Your task to perform on an android device: open wifi settings Image 0: 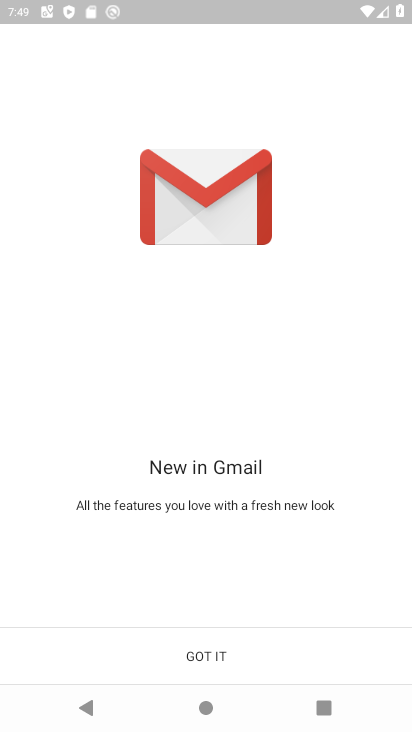
Step 0: click (214, 643)
Your task to perform on an android device: open wifi settings Image 1: 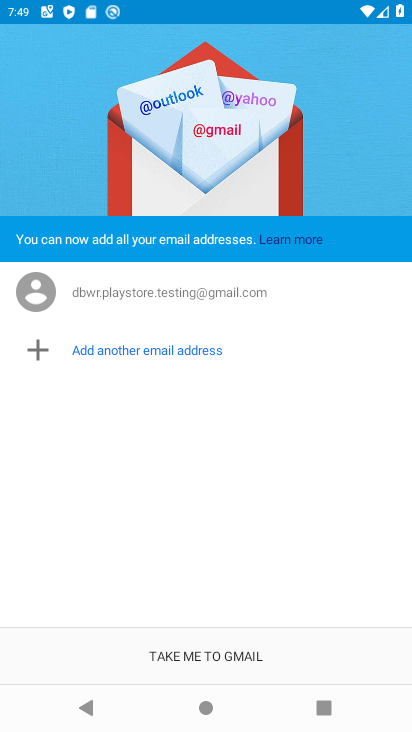
Step 1: click (144, 659)
Your task to perform on an android device: open wifi settings Image 2: 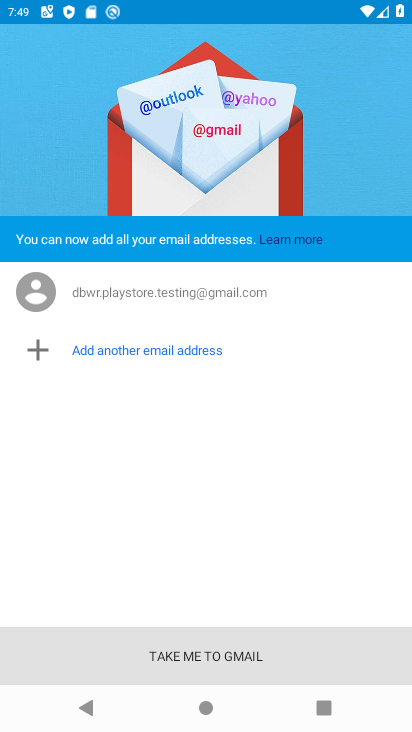
Step 2: click (162, 642)
Your task to perform on an android device: open wifi settings Image 3: 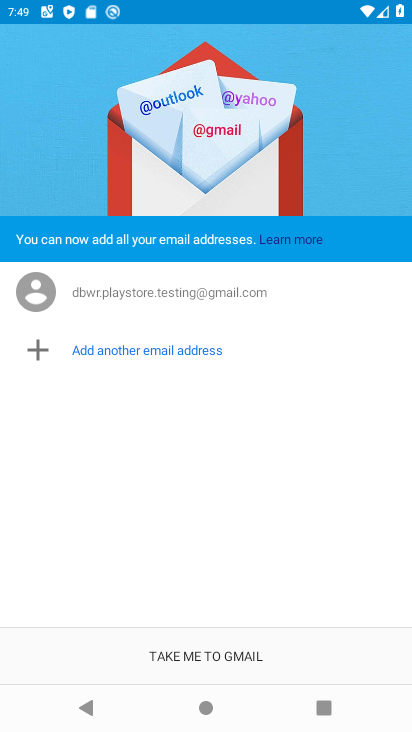
Step 3: click (168, 649)
Your task to perform on an android device: open wifi settings Image 4: 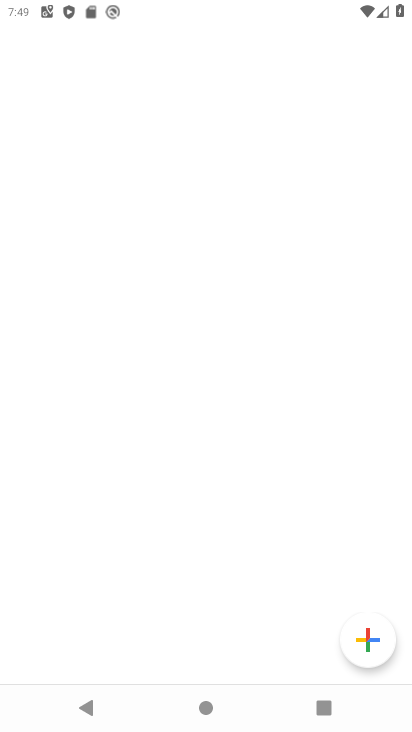
Step 4: click (170, 651)
Your task to perform on an android device: open wifi settings Image 5: 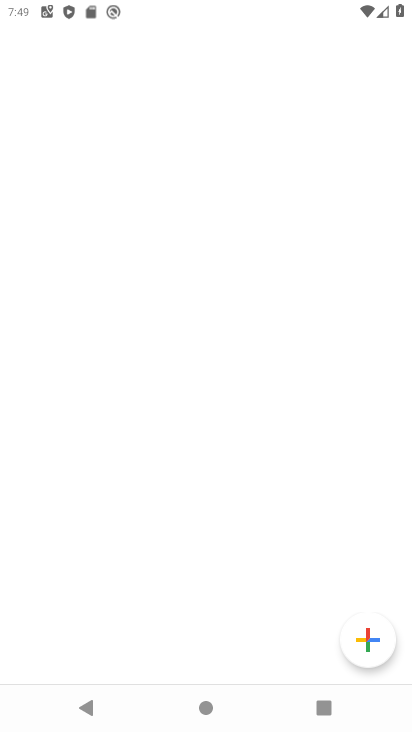
Step 5: click (168, 653)
Your task to perform on an android device: open wifi settings Image 6: 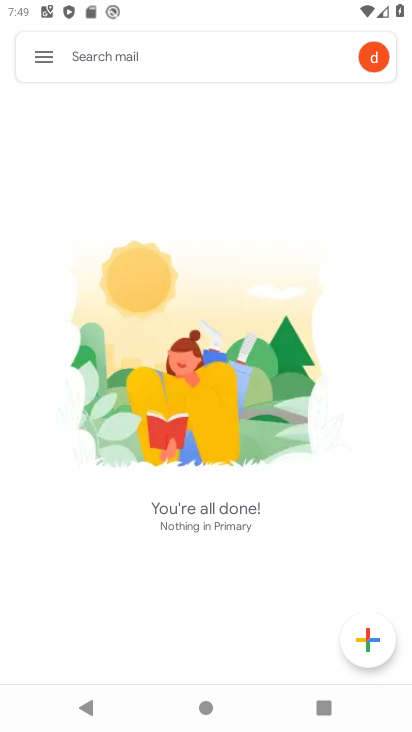
Step 6: click (51, 60)
Your task to perform on an android device: open wifi settings Image 7: 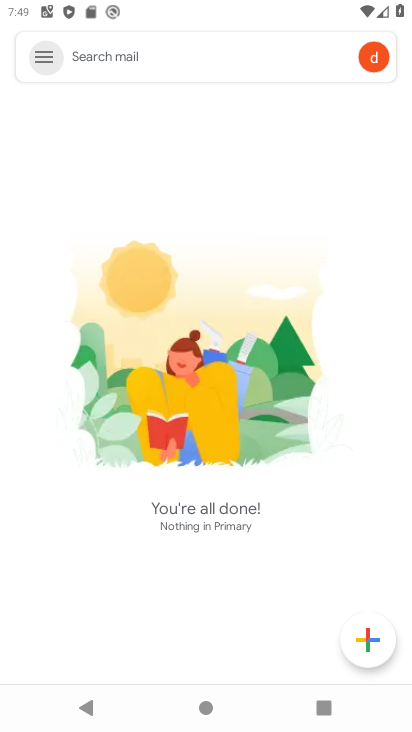
Step 7: click (55, 64)
Your task to perform on an android device: open wifi settings Image 8: 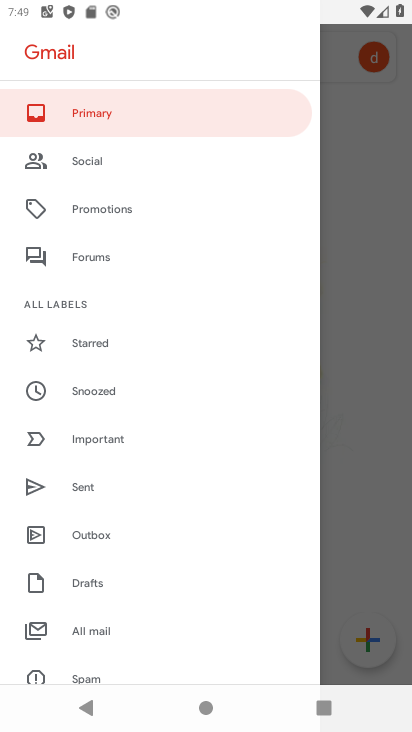
Step 8: click (327, 463)
Your task to perform on an android device: open wifi settings Image 9: 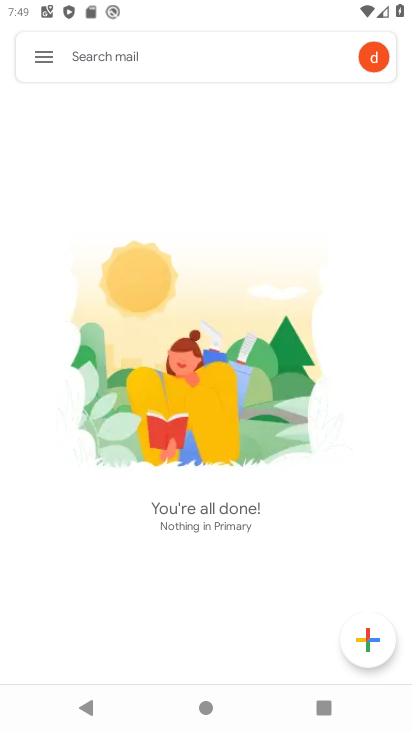
Step 9: click (41, 61)
Your task to perform on an android device: open wifi settings Image 10: 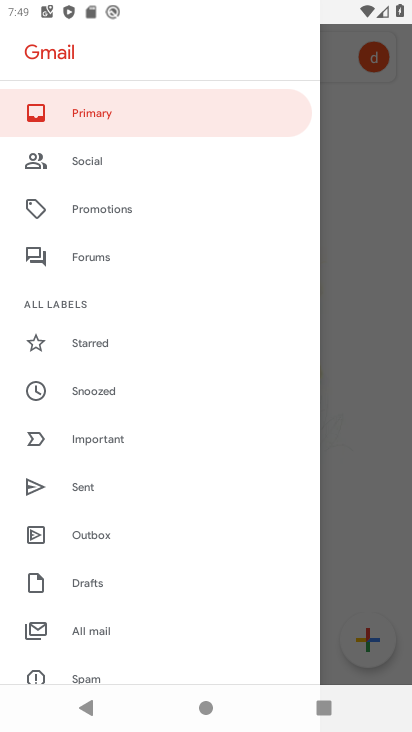
Step 10: press back button
Your task to perform on an android device: open wifi settings Image 11: 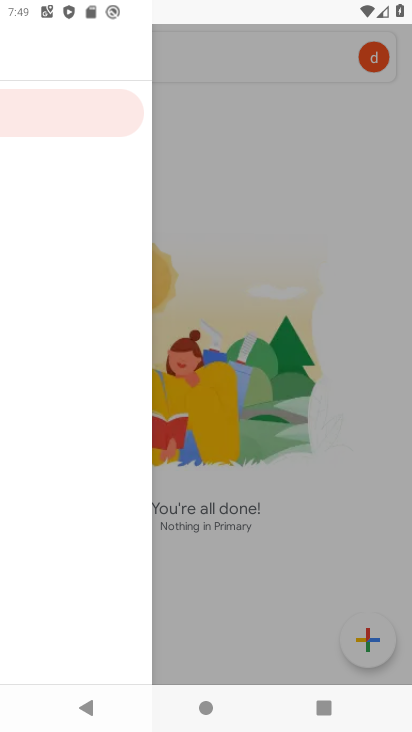
Step 11: press back button
Your task to perform on an android device: open wifi settings Image 12: 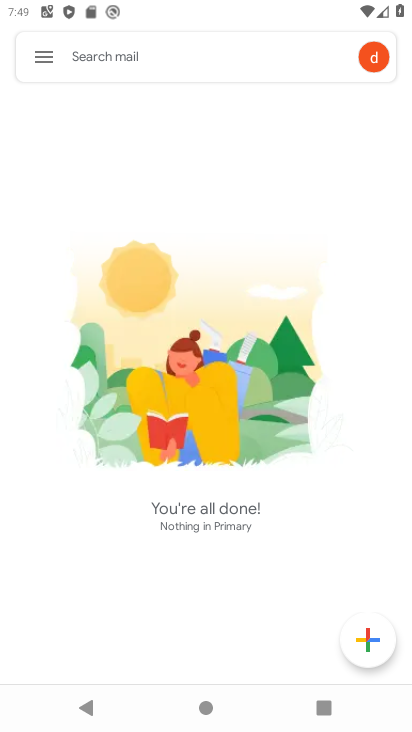
Step 12: press back button
Your task to perform on an android device: open wifi settings Image 13: 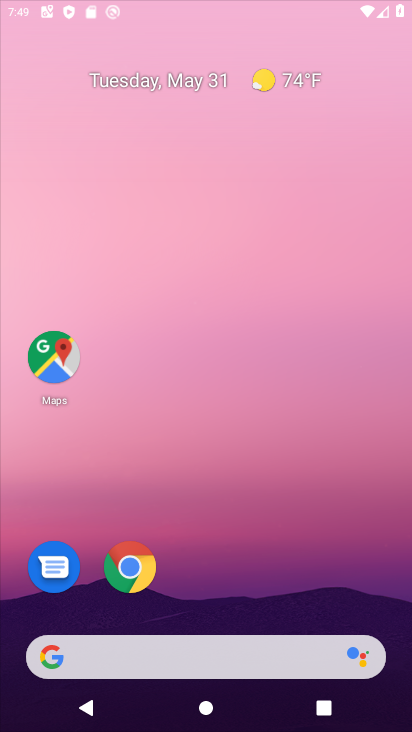
Step 13: press back button
Your task to perform on an android device: open wifi settings Image 14: 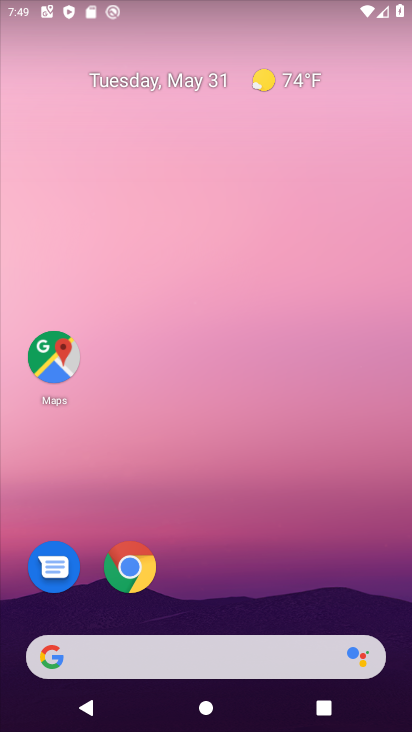
Step 14: drag from (263, 572) to (219, 83)
Your task to perform on an android device: open wifi settings Image 15: 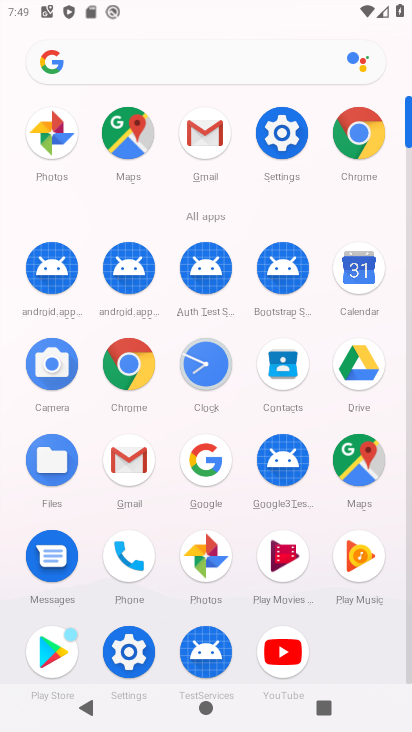
Step 15: click (285, 151)
Your task to perform on an android device: open wifi settings Image 16: 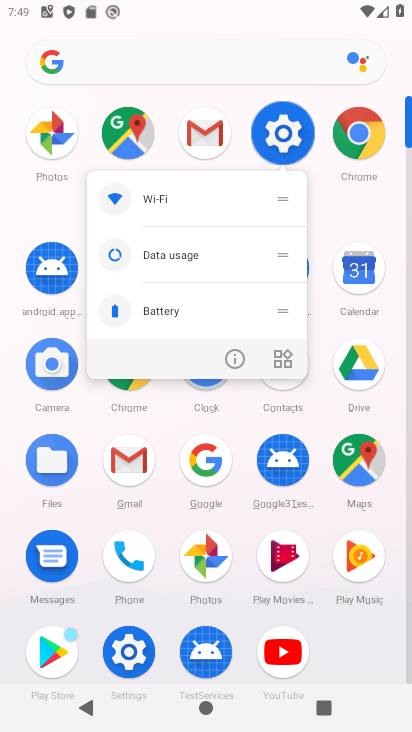
Step 16: click (297, 142)
Your task to perform on an android device: open wifi settings Image 17: 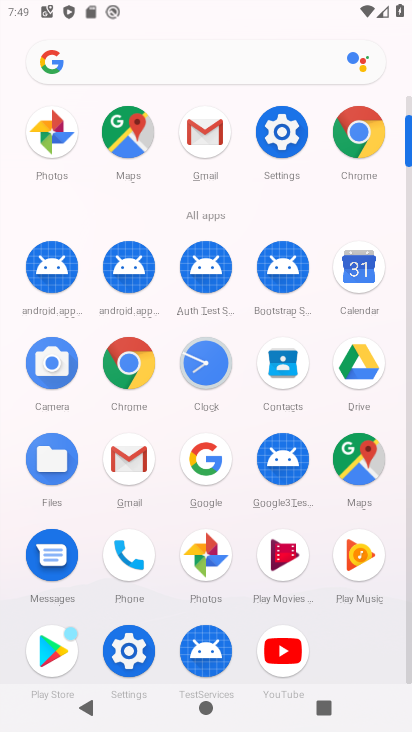
Step 17: click (306, 133)
Your task to perform on an android device: open wifi settings Image 18: 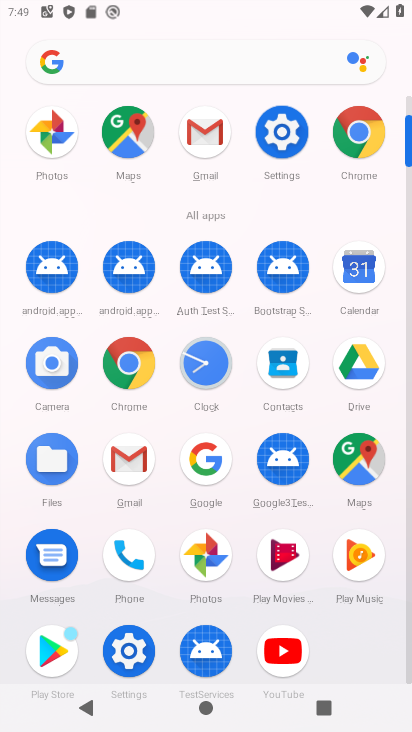
Step 18: click (306, 133)
Your task to perform on an android device: open wifi settings Image 19: 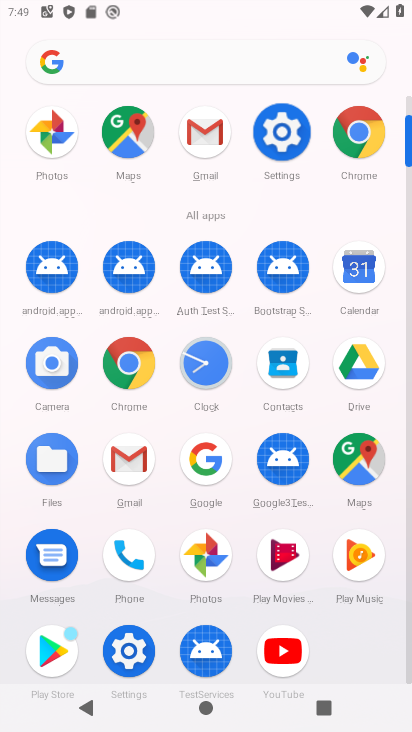
Step 19: click (306, 133)
Your task to perform on an android device: open wifi settings Image 20: 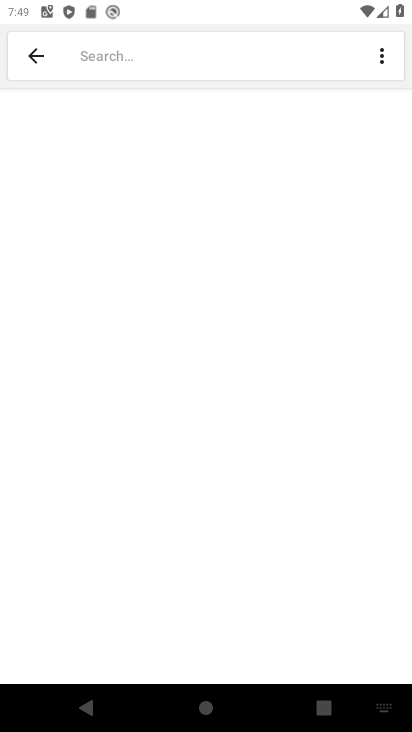
Step 20: click (28, 56)
Your task to perform on an android device: open wifi settings Image 21: 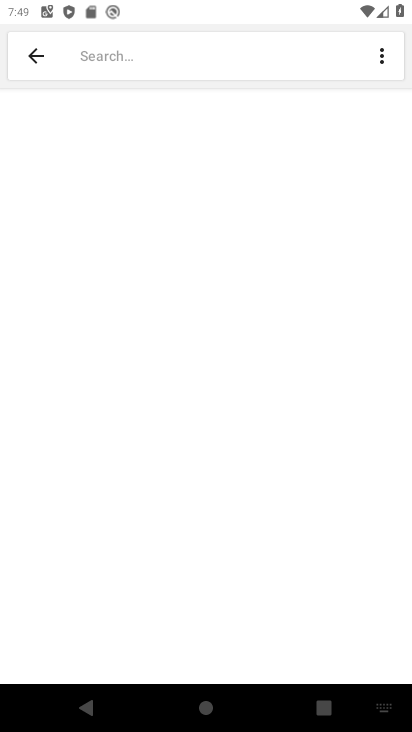
Step 21: click (28, 56)
Your task to perform on an android device: open wifi settings Image 22: 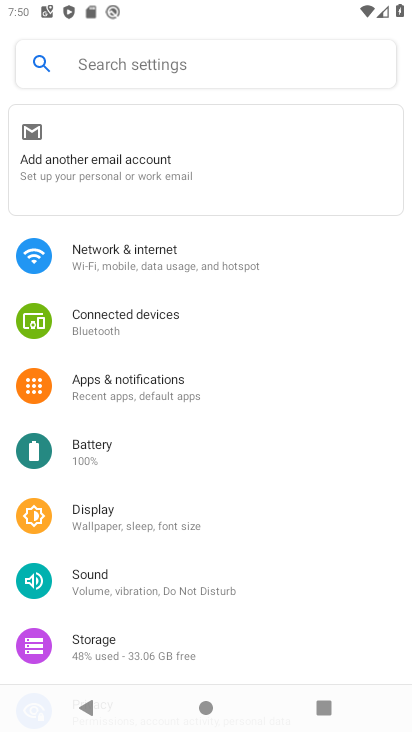
Step 22: click (146, 256)
Your task to perform on an android device: open wifi settings Image 23: 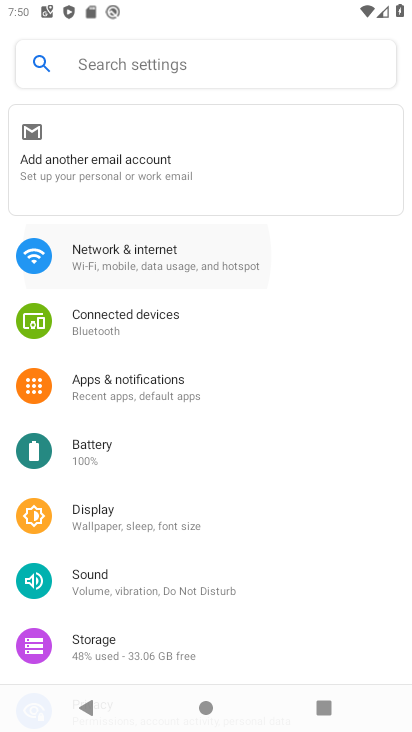
Step 23: click (146, 256)
Your task to perform on an android device: open wifi settings Image 24: 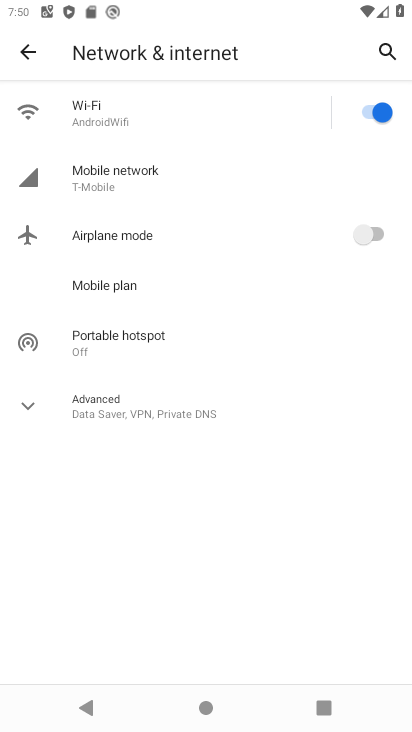
Step 24: task complete